Your task to perform on an android device: delete the emails in spam in the gmail app Image 0: 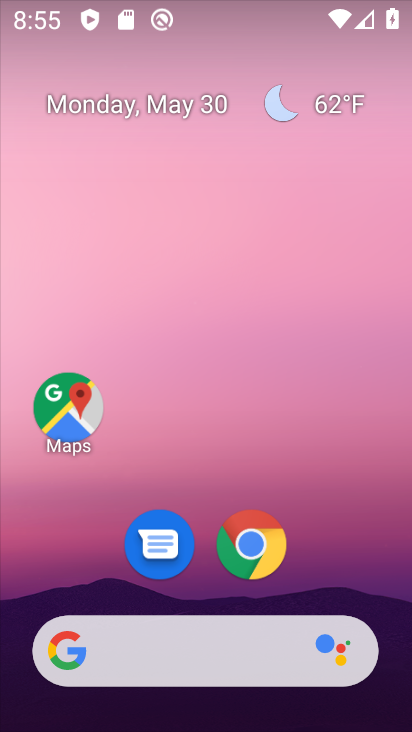
Step 0: drag from (320, 571) to (286, 263)
Your task to perform on an android device: delete the emails in spam in the gmail app Image 1: 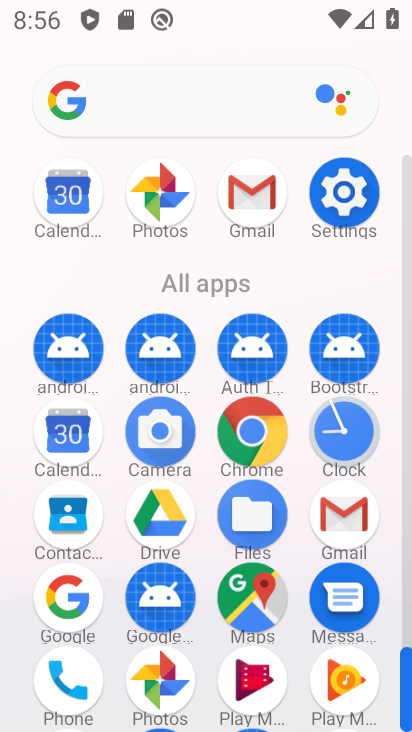
Step 1: click (253, 195)
Your task to perform on an android device: delete the emails in spam in the gmail app Image 2: 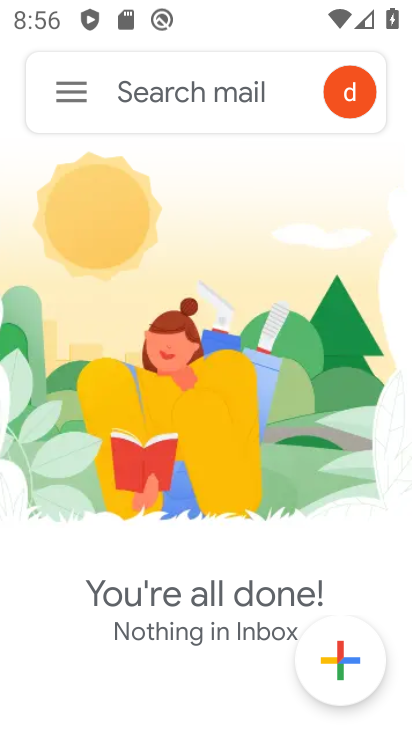
Step 2: click (80, 81)
Your task to perform on an android device: delete the emails in spam in the gmail app Image 3: 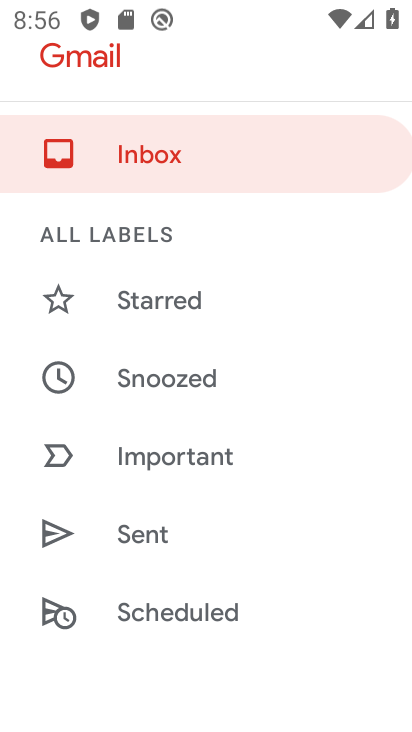
Step 3: drag from (172, 343) to (219, 271)
Your task to perform on an android device: delete the emails in spam in the gmail app Image 4: 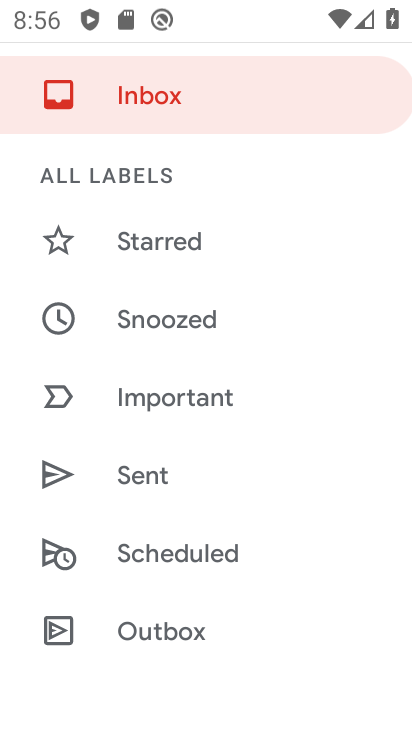
Step 4: drag from (208, 474) to (210, 375)
Your task to perform on an android device: delete the emails in spam in the gmail app Image 5: 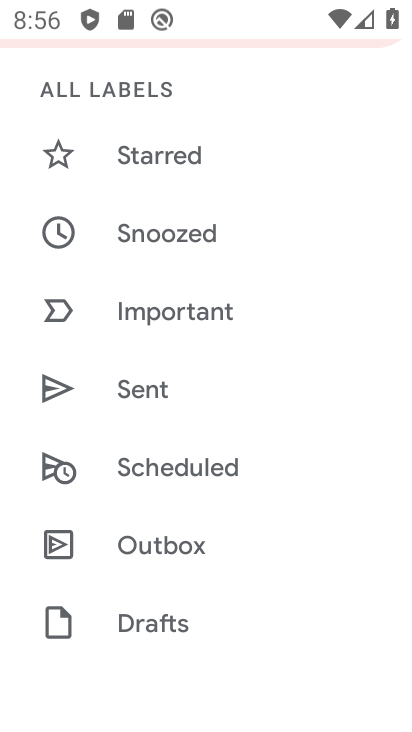
Step 5: drag from (180, 535) to (238, 410)
Your task to perform on an android device: delete the emails in spam in the gmail app Image 6: 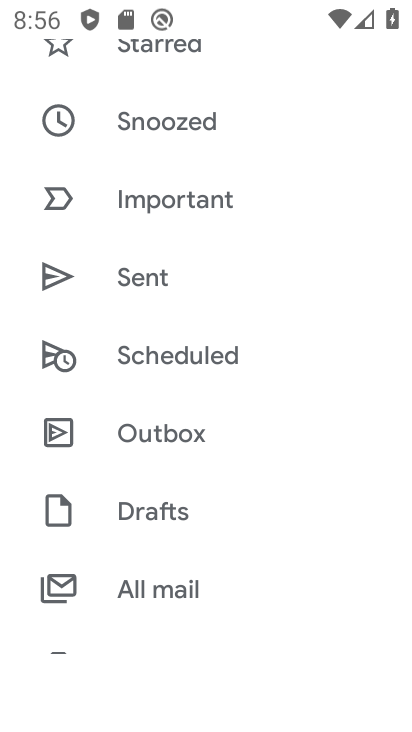
Step 6: drag from (180, 541) to (251, 428)
Your task to perform on an android device: delete the emails in spam in the gmail app Image 7: 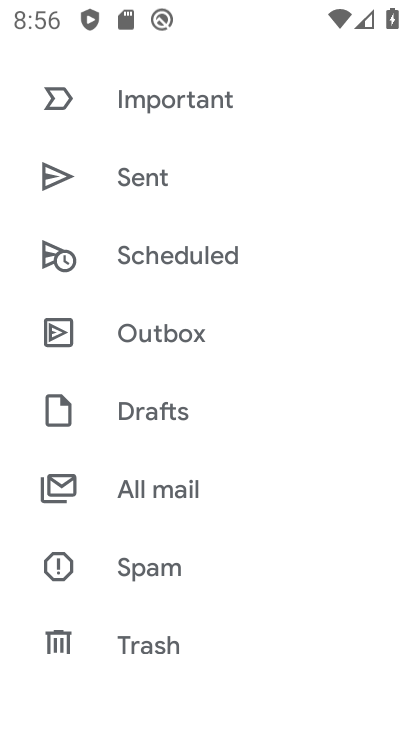
Step 7: click (171, 557)
Your task to perform on an android device: delete the emails in spam in the gmail app Image 8: 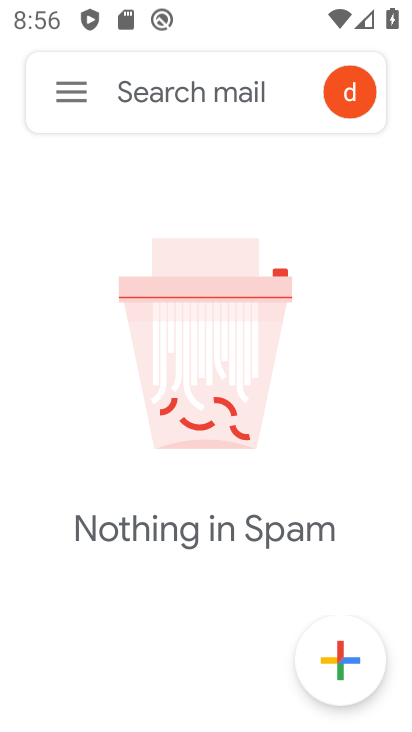
Step 8: task complete